Your task to perform on an android device: clear all cookies in the chrome app Image 0: 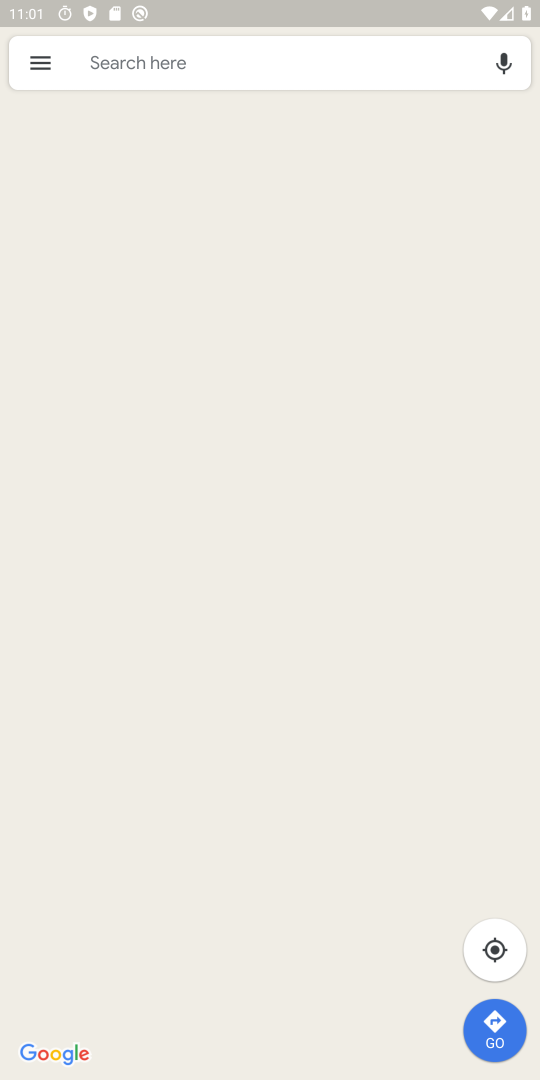
Step 0: press home button
Your task to perform on an android device: clear all cookies in the chrome app Image 1: 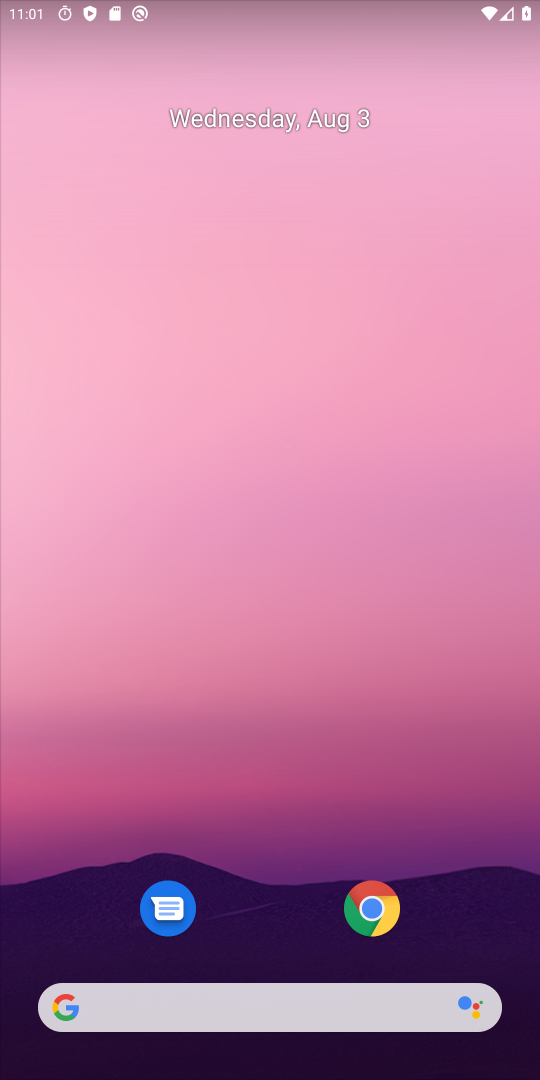
Step 1: drag from (273, 1008) to (340, 109)
Your task to perform on an android device: clear all cookies in the chrome app Image 2: 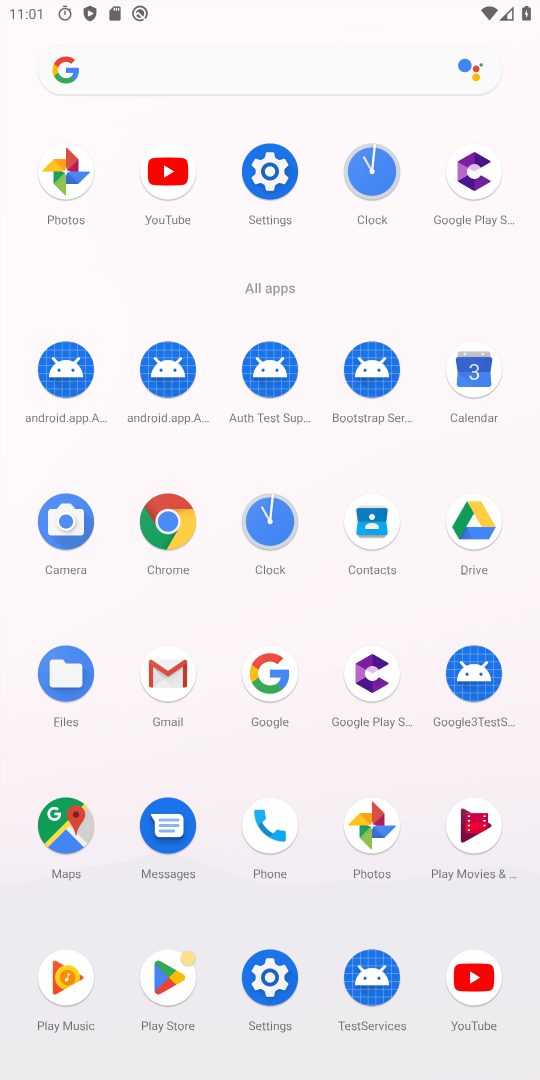
Step 2: click (184, 532)
Your task to perform on an android device: clear all cookies in the chrome app Image 3: 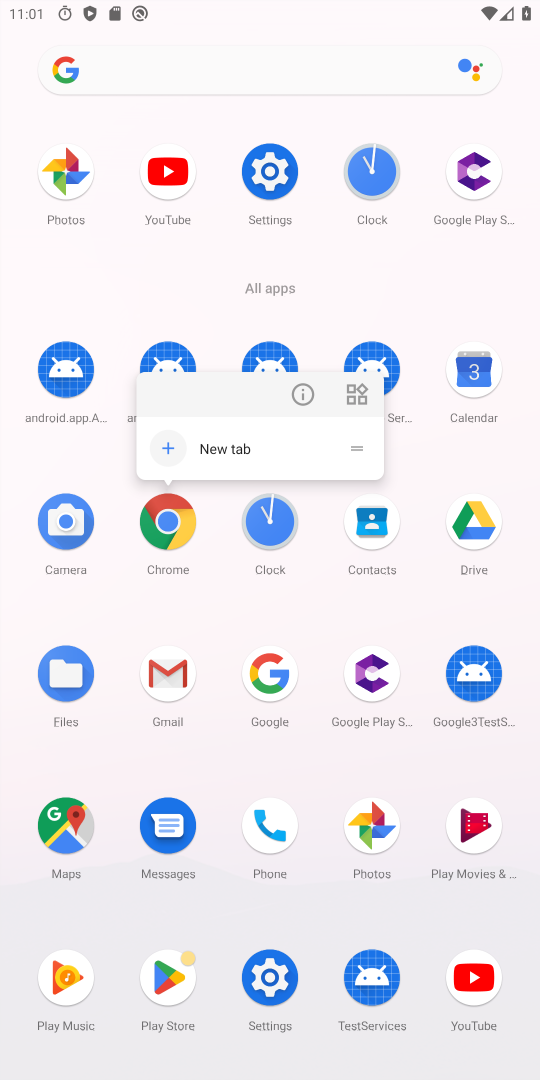
Step 3: click (174, 540)
Your task to perform on an android device: clear all cookies in the chrome app Image 4: 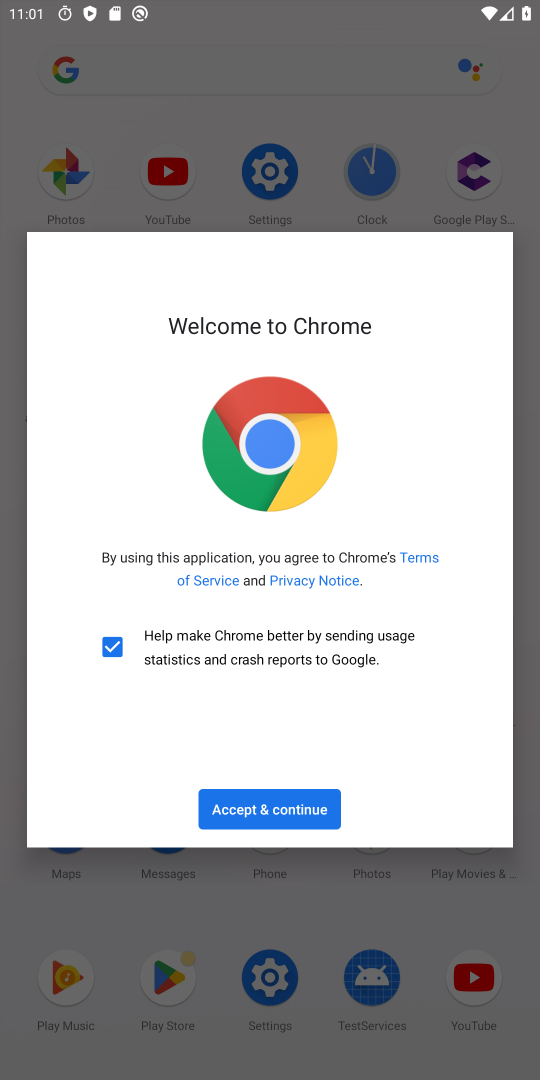
Step 4: click (247, 814)
Your task to perform on an android device: clear all cookies in the chrome app Image 5: 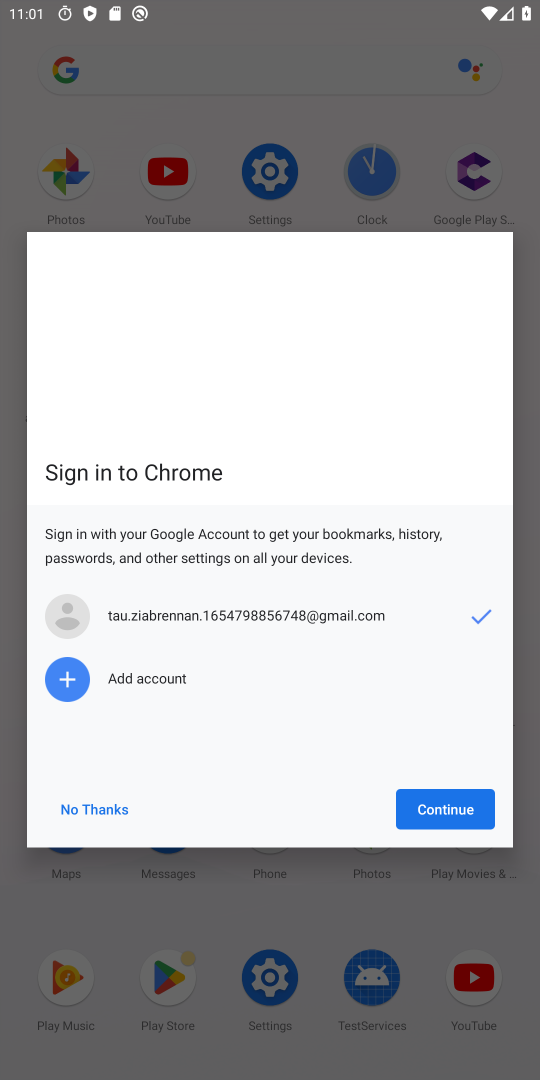
Step 5: click (433, 803)
Your task to perform on an android device: clear all cookies in the chrome app Image 6: 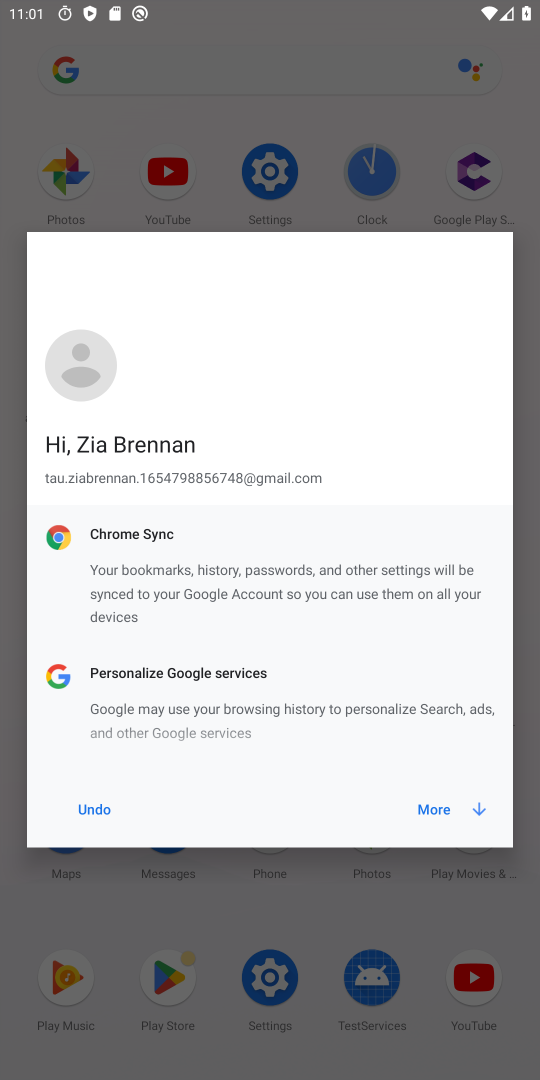
Step 6: click (446, 800)
Your task to perform on an android device: clear all cookies in the chrome app Image 7: 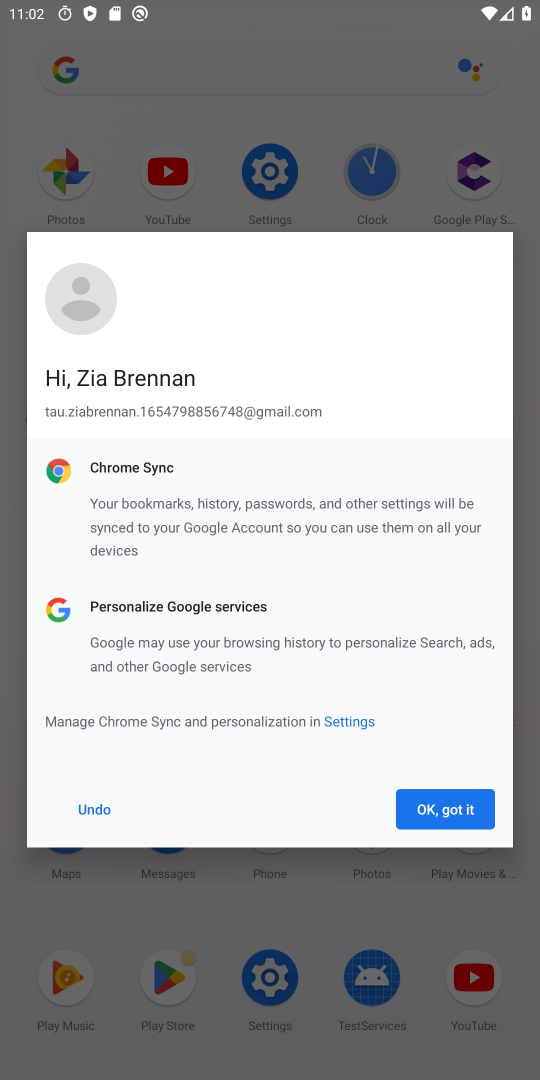
Step 7: click (445, 803)
Your task to perform on an android device: clear all cookies in the chrome app Image 8: 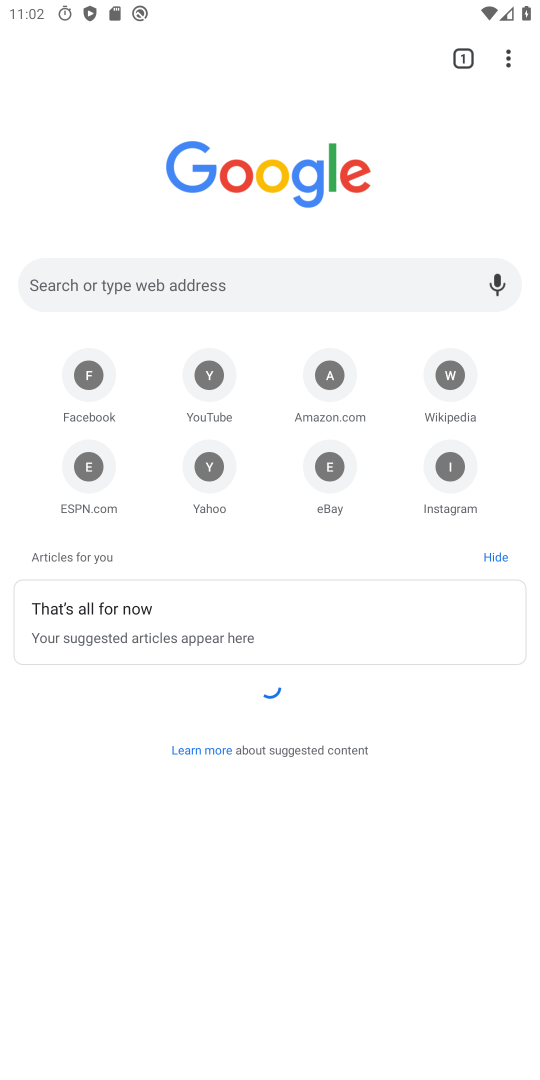
Step 8: click (511, 61)
Your task to perform on an android device: clear all cookies in the chrome app Image 9: 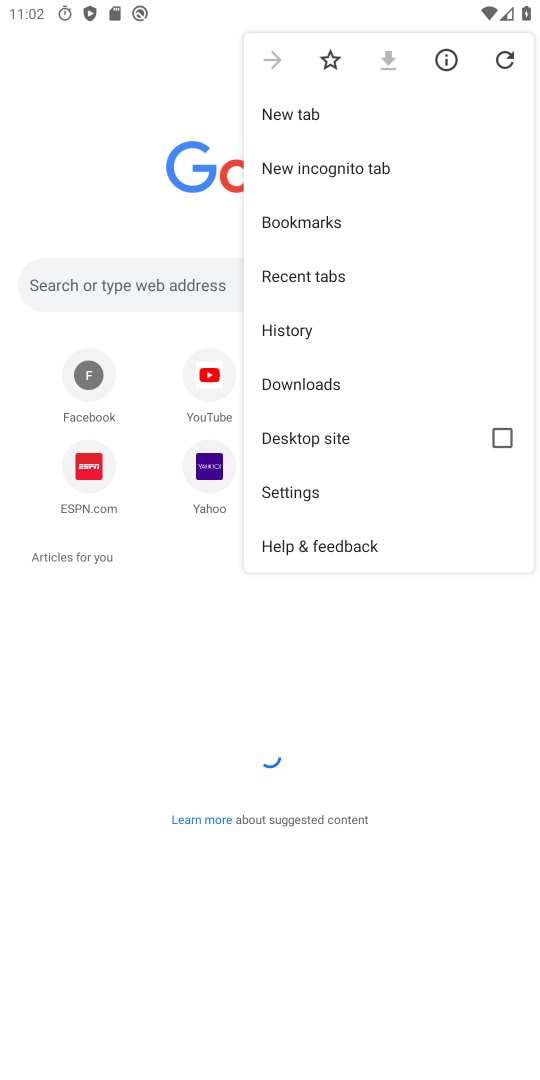
Step 9: click (315, 507)
Your task to perform on an android device: clear all cookies in the chrome app Image 10: 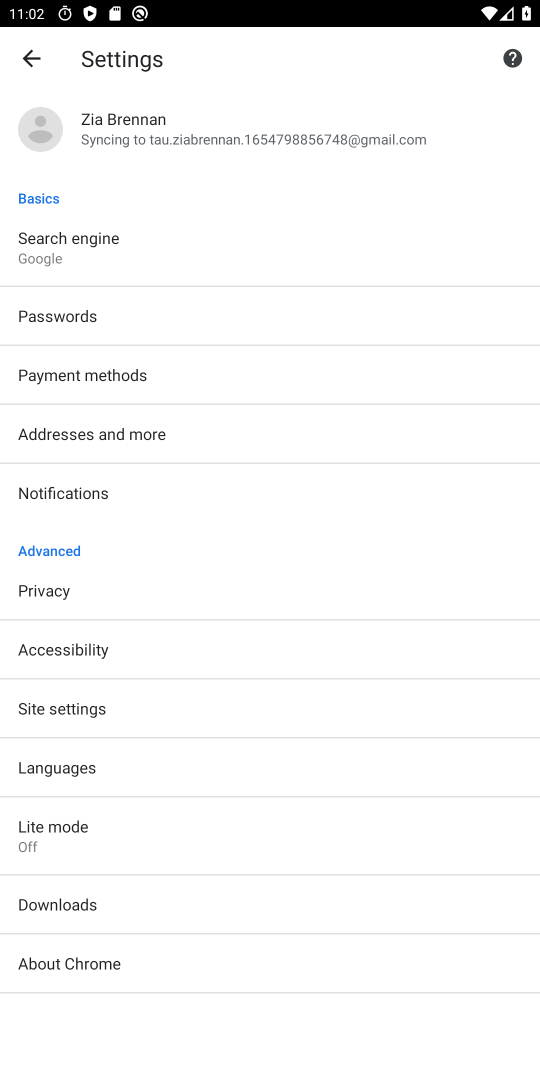
Step 10: click (70, 598)
Your task to perform on an android device: clear all cookies in the chrome app Image 11: 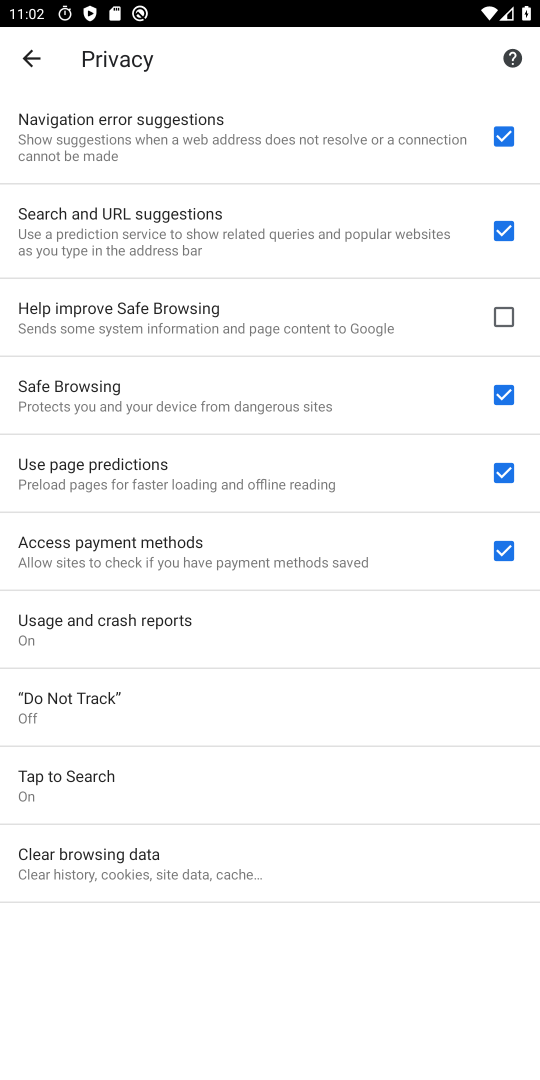
Step 11: click (152, 868)
Your task to perform on an android device: clear all cookies in the chrome app Image 12: 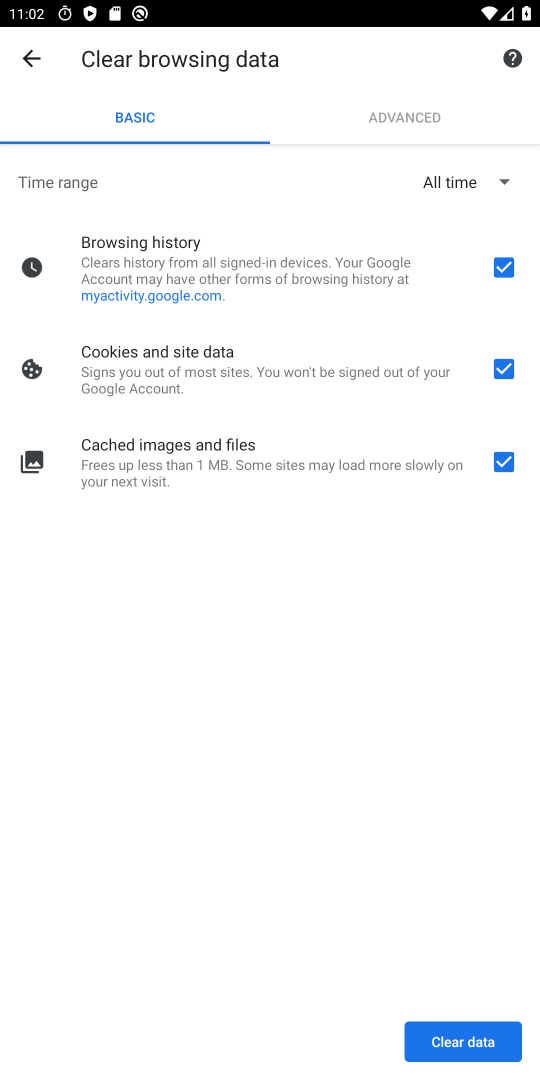
Step 12: click (453, 1031)
Your task to perform on an android device: clear all cookies in the chrome app Image 13: 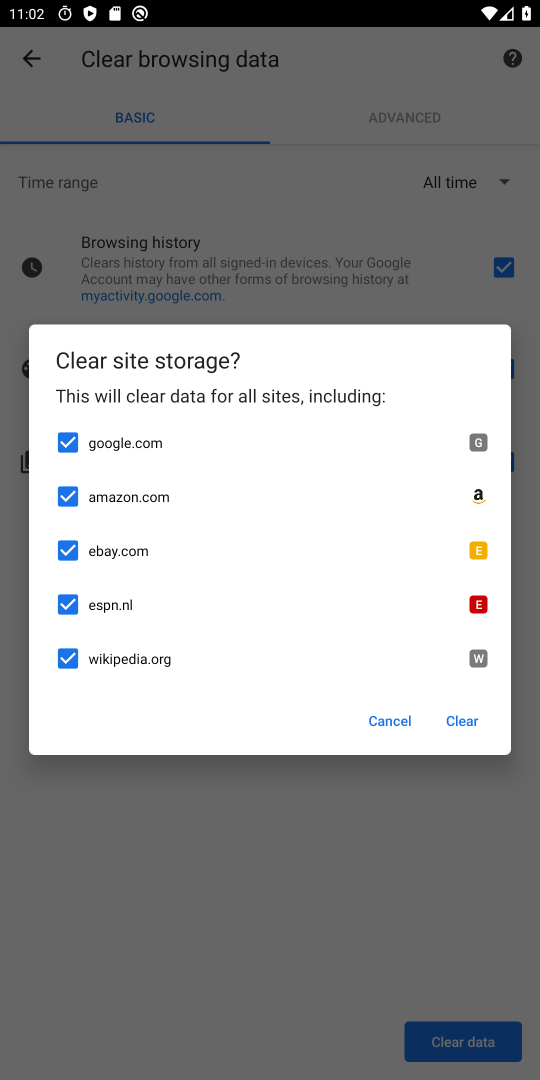
Step 13: click (466, 721)
Your task to perform on an android device: clear all cookies in the chrome app Image 14: 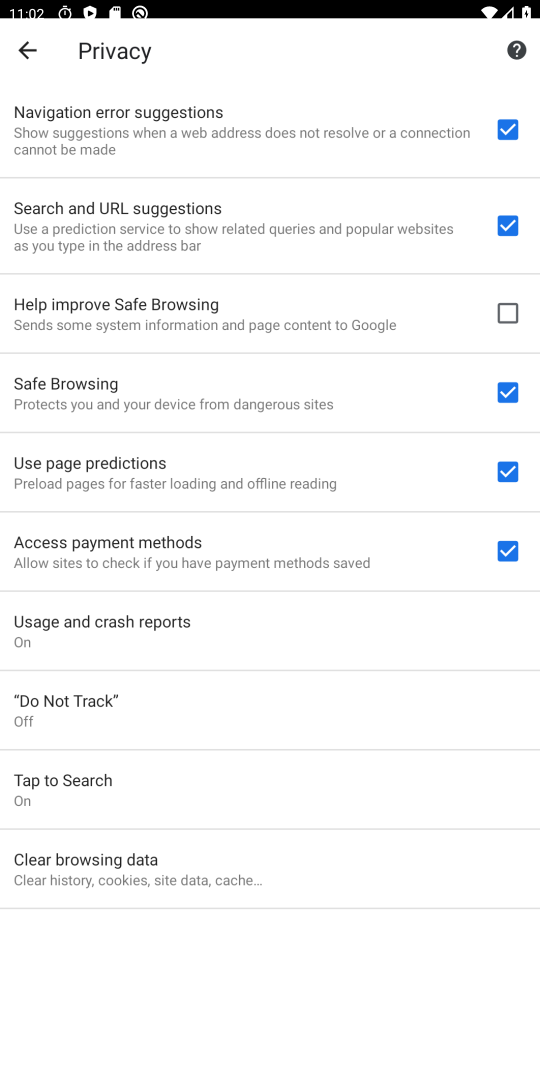
Step 14: task complete